Your task to perform on an android device: Go to Yahoo.com Image 0: 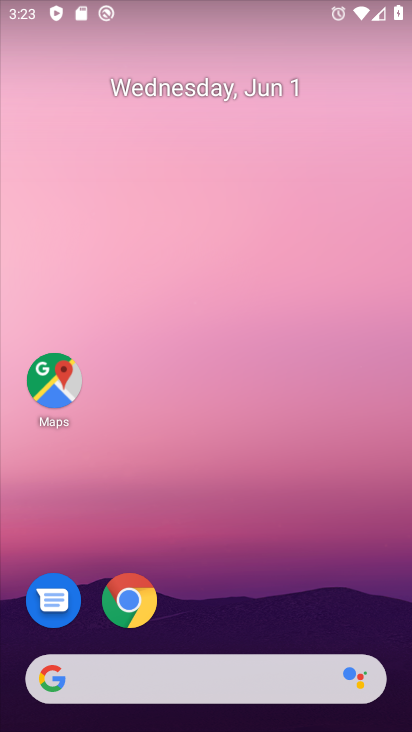
Step 0: click (131, 605)
Your task to perform on an android device: Go to Yahoo.com Image 1: 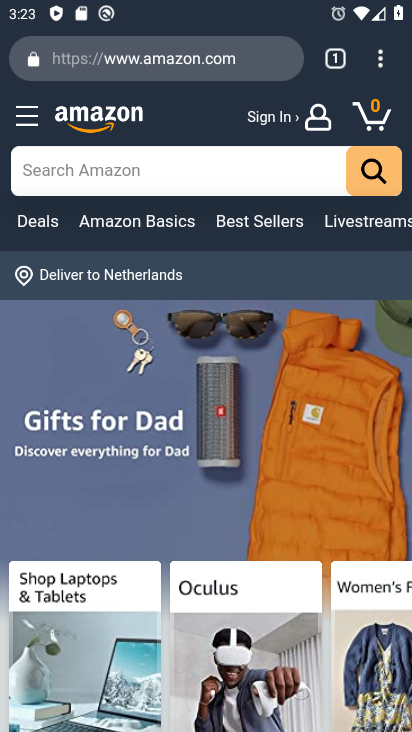
Step 1: press back button
Your task to perform on an android device: Go to Yahoo.com Image 2: 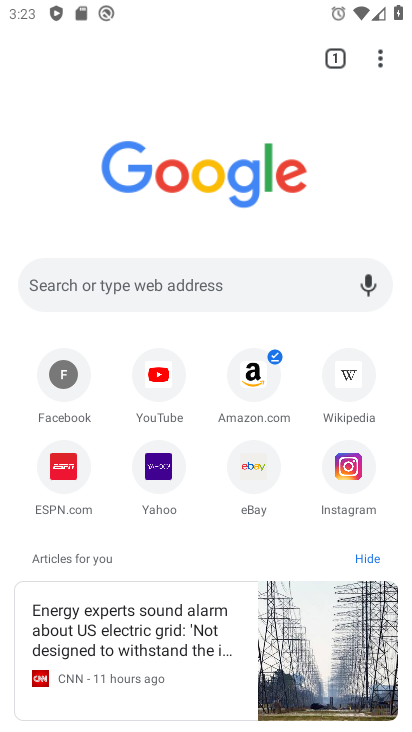
Step 2: click (157, 474)
Your task to perform on an android device: Go to Yahoo.com Image 3: 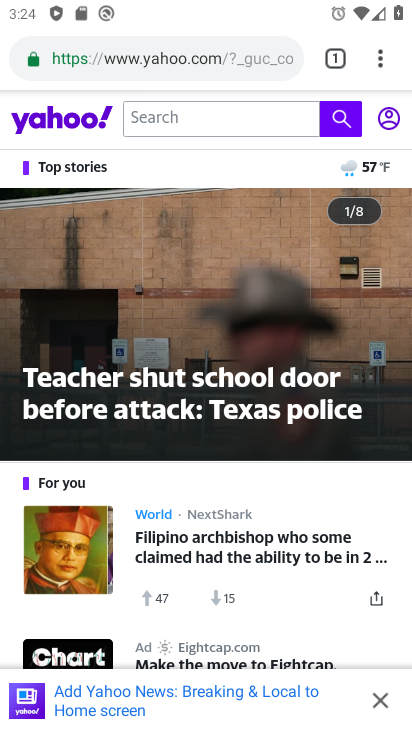
Step 3: task complete